Your task to perform on an android device: change your default location settings in chrome Image 0: 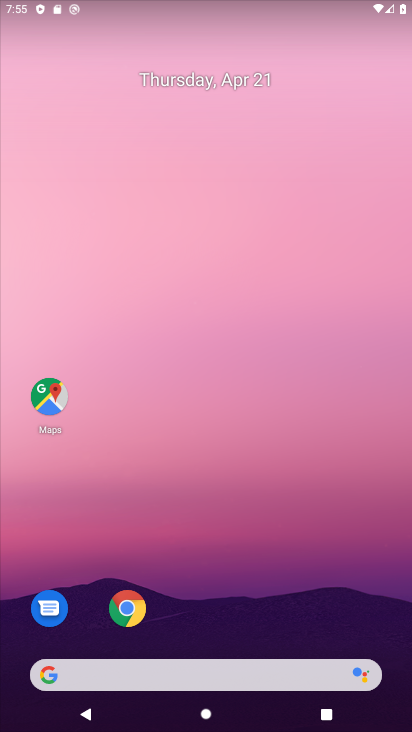
Step 0: click (110, 600)
Your task to perform on an android device: change your default location settings in chrome Image 1: 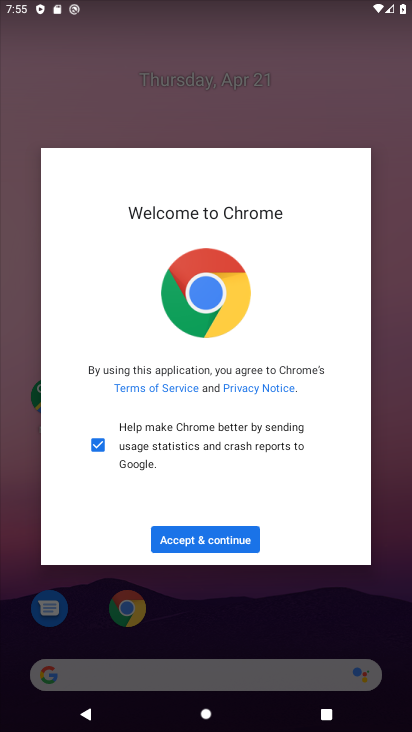
Step 1: click (221, 551)
Your task to perform on an android device: change your default location settings in chrome Image 2: 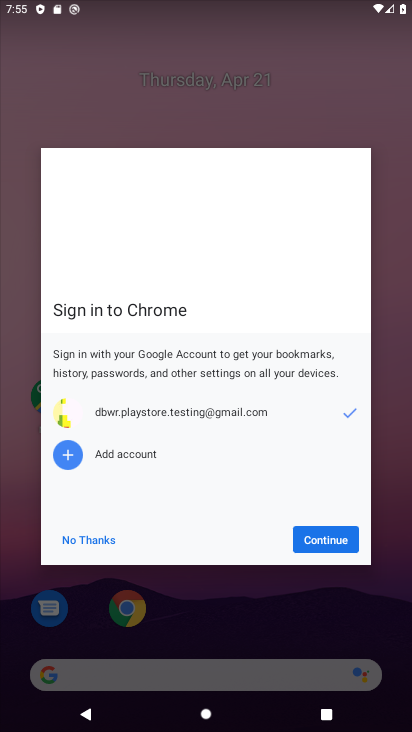
Step 2: click (339, 535)
Your task to perform on an android device: change your default location settings in chrome Image 3: 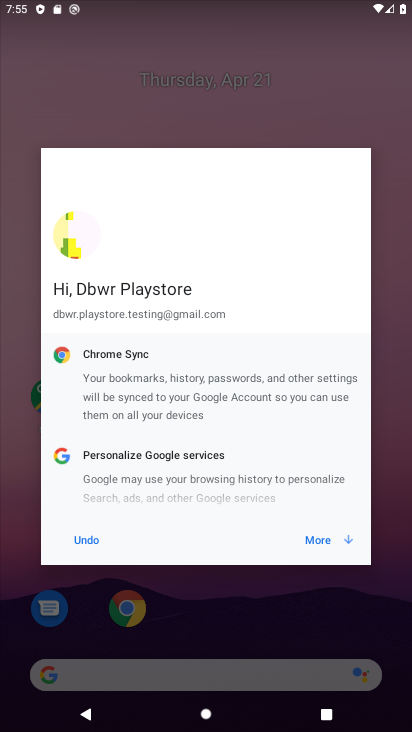
Step 3: click (339, 535)
Your task to perform on an android device: change your default location settings in chrome Image 4: 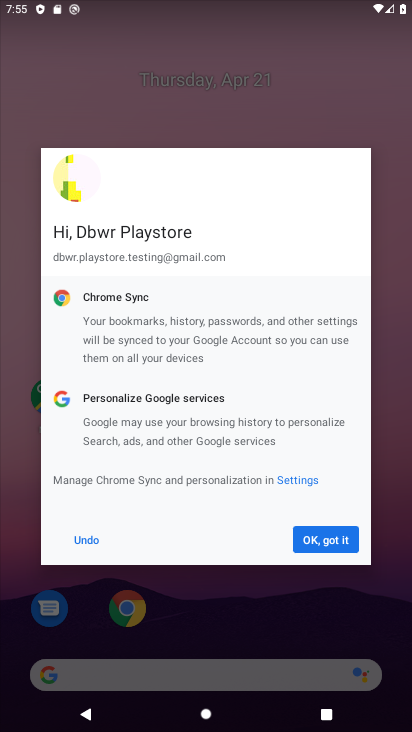
Step 4: click (339, 535)
Your task to perform on an android device: change your default location settings in chrome Image 5: 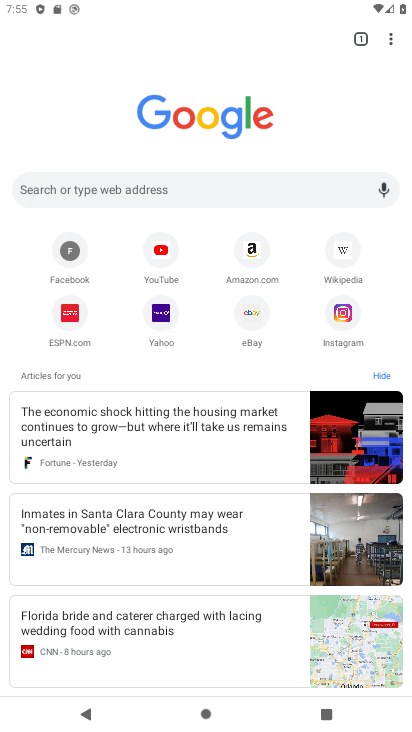
Step 5: click (392, 56)
Your task to perform on an android device: change your default location settings in chrome Image 6: 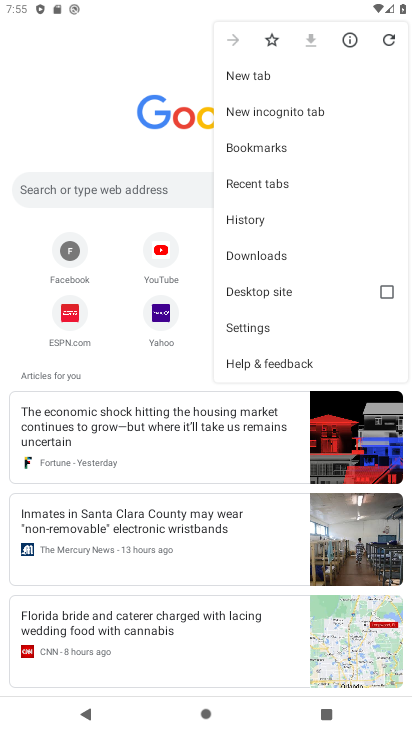
Step 6: click (246, 325)
Your task to perform on an android device: change your default location settings in chrome Image 7: 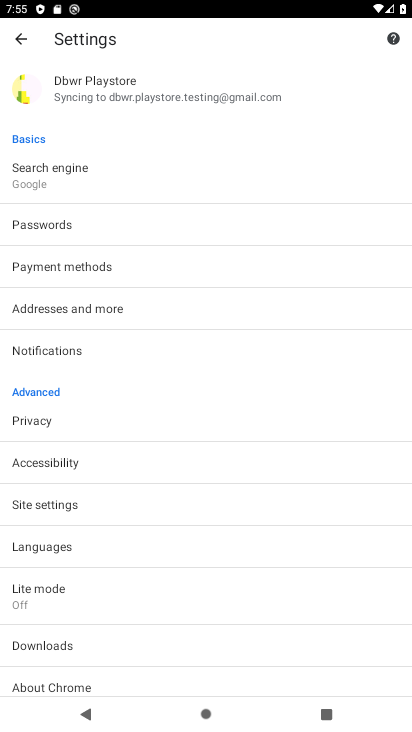
Step 7: click (59, 506)
Your task to perform on an android device: change your default location settings in chrome Image 8: 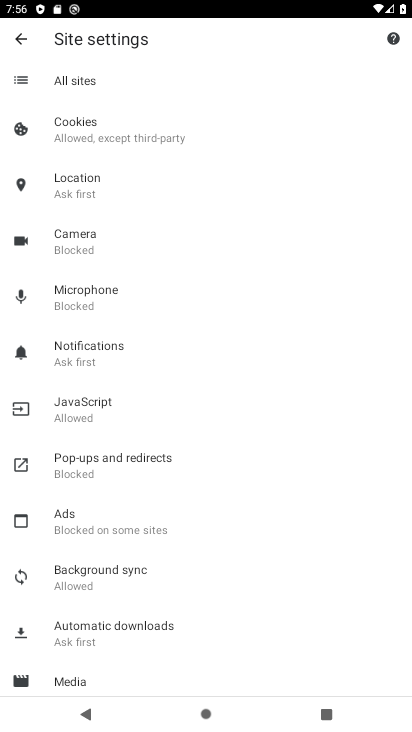
Step 8: click (132, 176)
Your task to perform on an android device: change your default location settings in chrome Image 9: 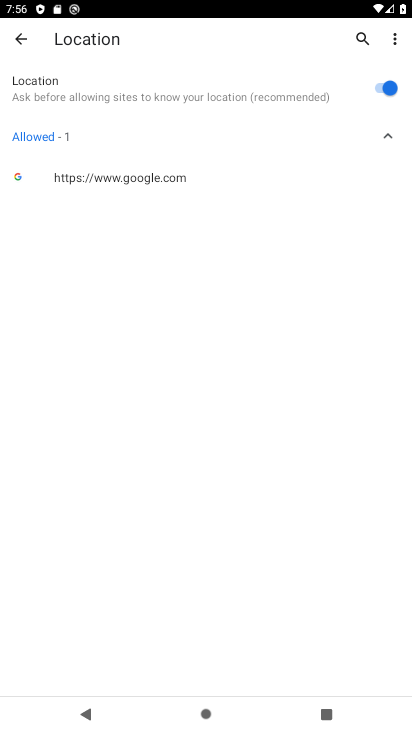
Step 9: click (379, 88)
Your task to perform on an android device: change your default location settings in chrome Image 10: 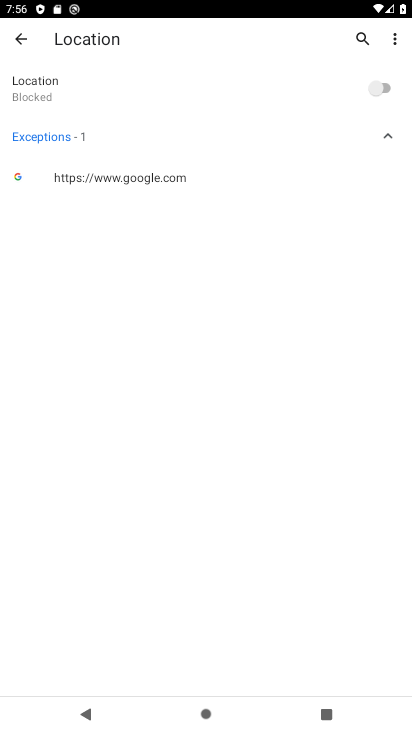
Step 10: task complete